Your task to perform on an android device: Open ESPN.com Image 0: 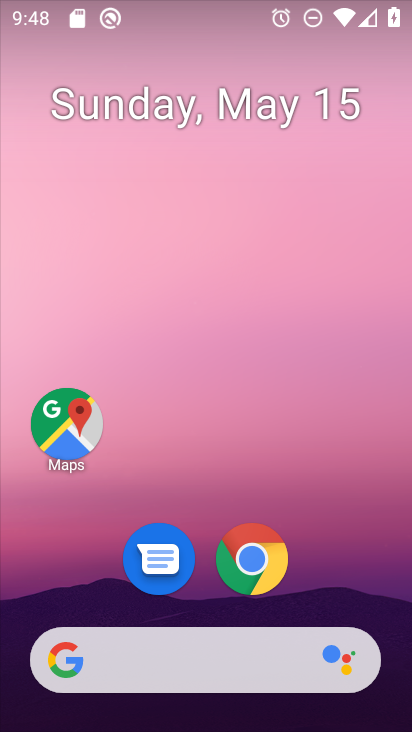
Step 0: click (254, 572)
Your task to perform on an android device: Open ESPN.com Image 1: 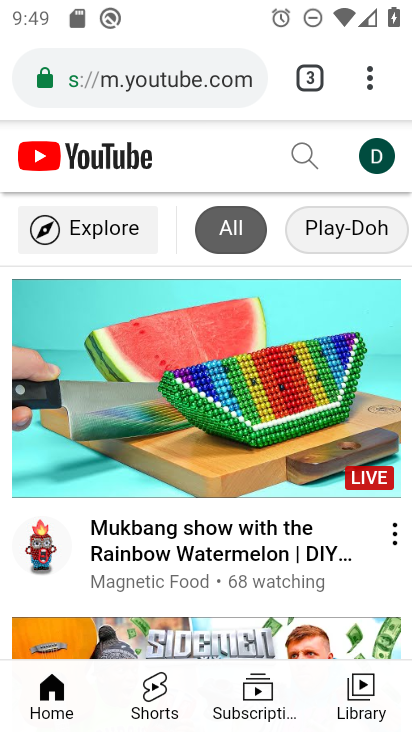
Step 1: click (153, 96)
Your task to perform on an android device: Open ESPN.com Image 2: 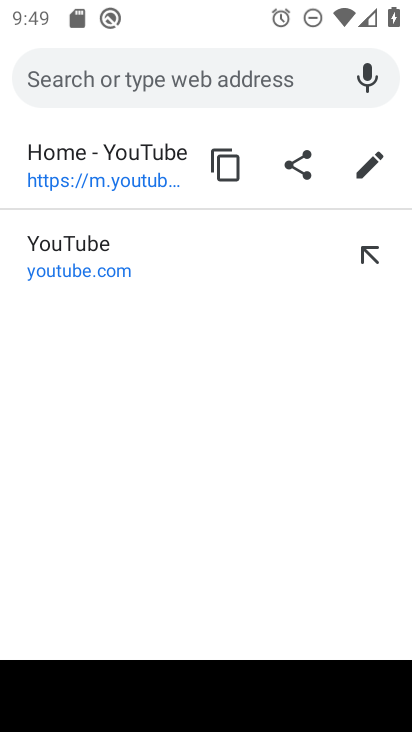
Step 2: type "esp.com"
Your task to perform on an android device: Open ESPN.com Image 3: 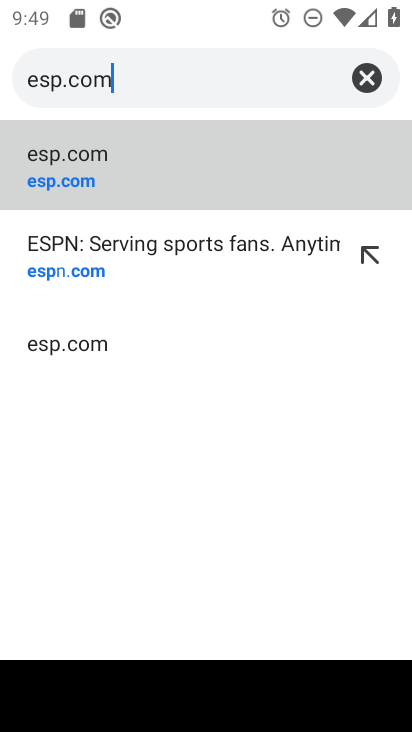
Step 3: click (119, 154)
Your task to perform on an android device: Open ESPN.com Image 4: 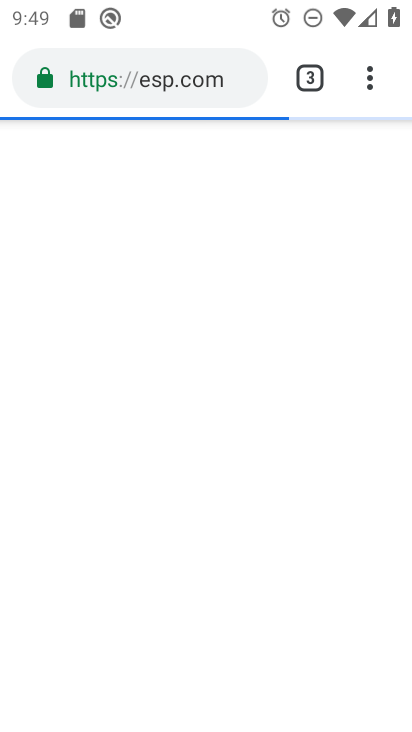
Step 4: task complete